Your task to perform on an android device: What's the weather today? Image 0: 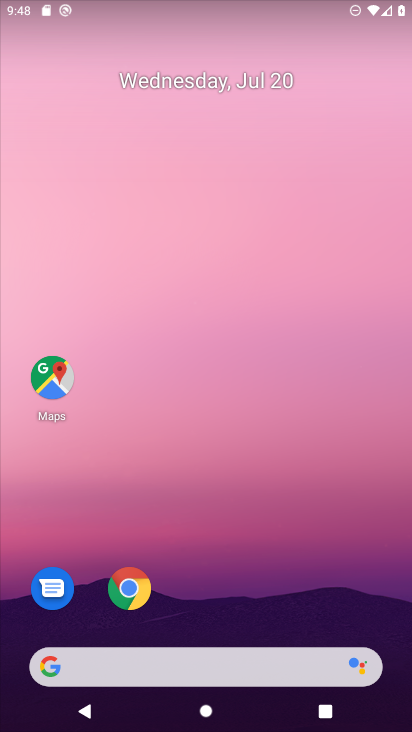
Step 0: click (192, 667)
Your task to perform on an android device: What's the weather today? Image 1: 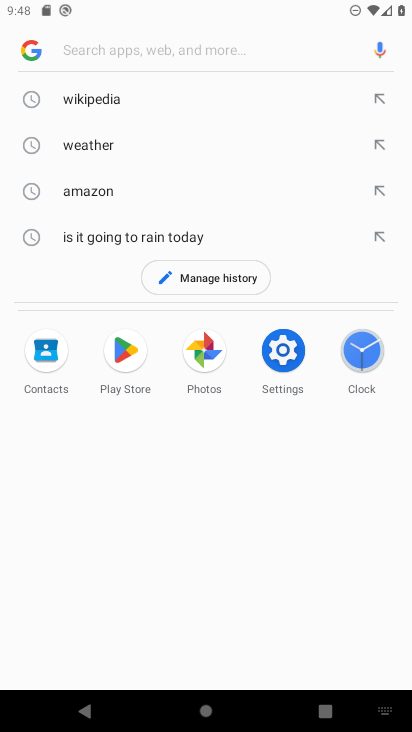
Step 1: click (111, 155)
Your task to perform on an android device: What's the weather today? Image 2: 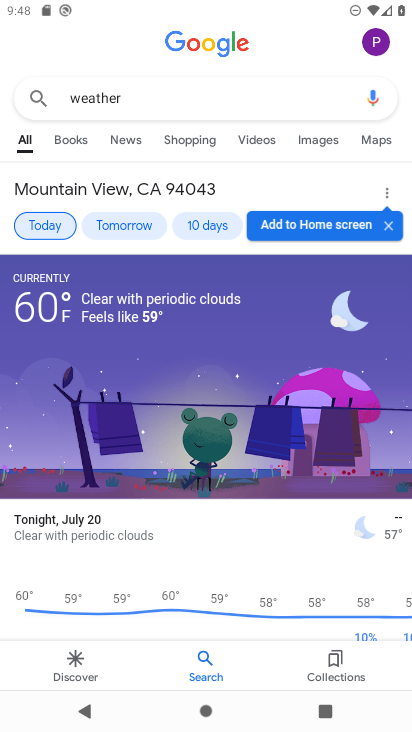
Step 2: task complete